Your task to perform on an android device: toggle translation in the chrome app Image 0: 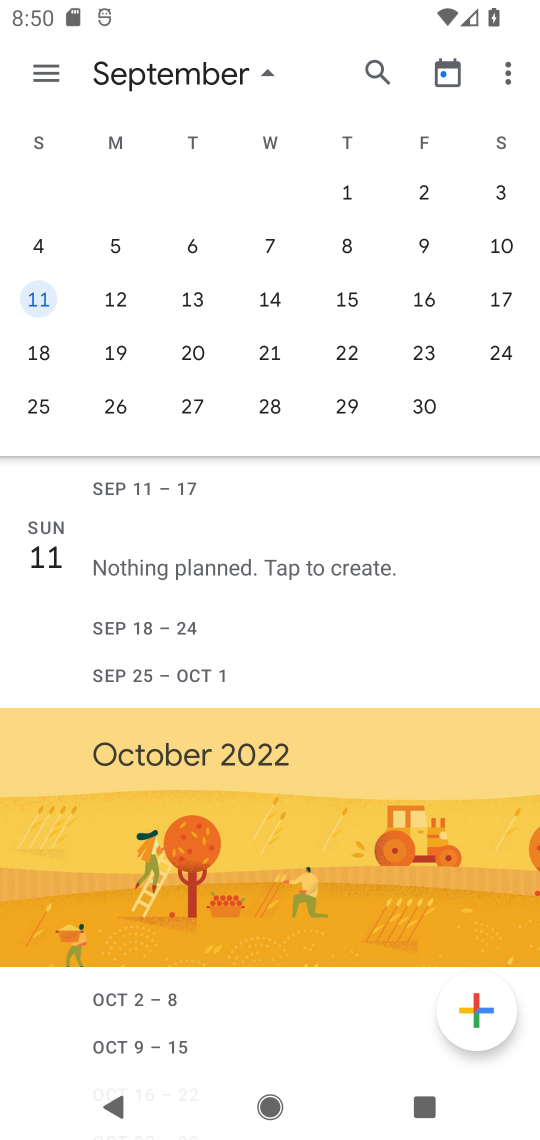
Step 0: press home button
Your task to perform on an android device: toggle translation in the chrome app Image 1: 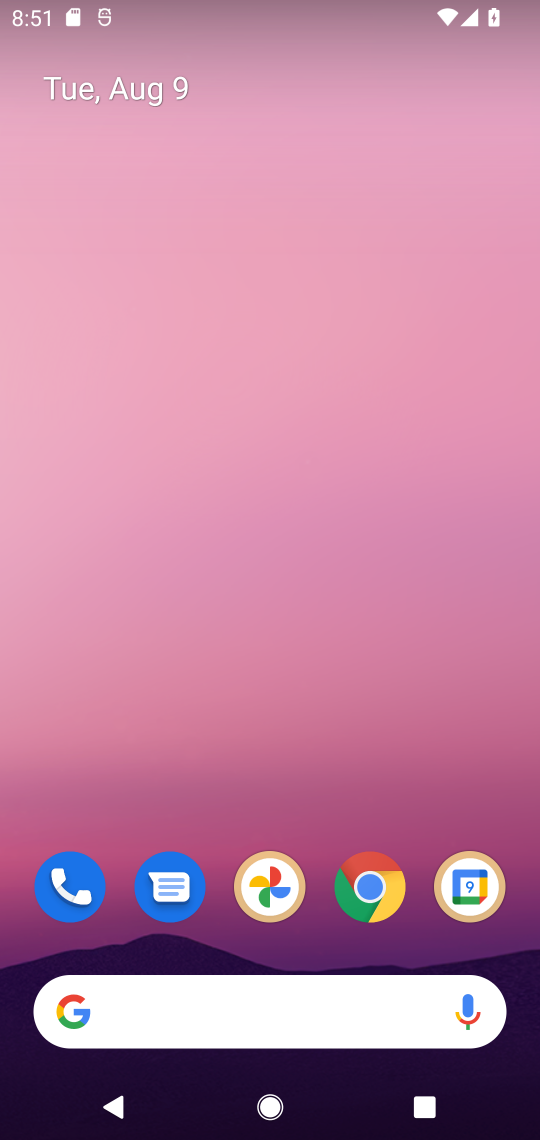
Step 1: click (374, 880)
Your task to perform on an android device: toggle translation in the chrome app Image 2: 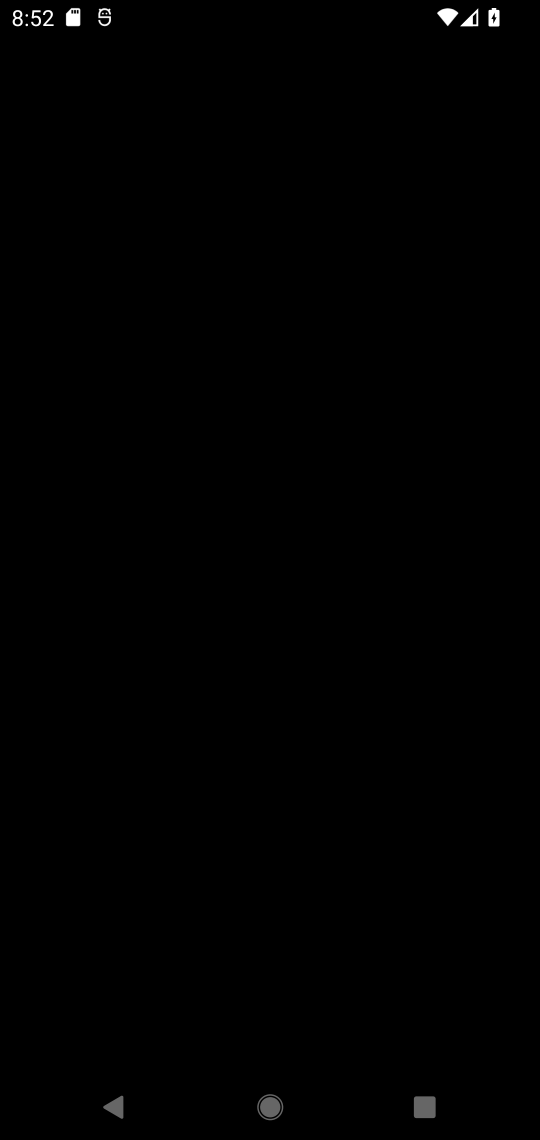
Step 2: task complete